Your task to perform on an android device: search for starred emails in the gmail app Image 0: 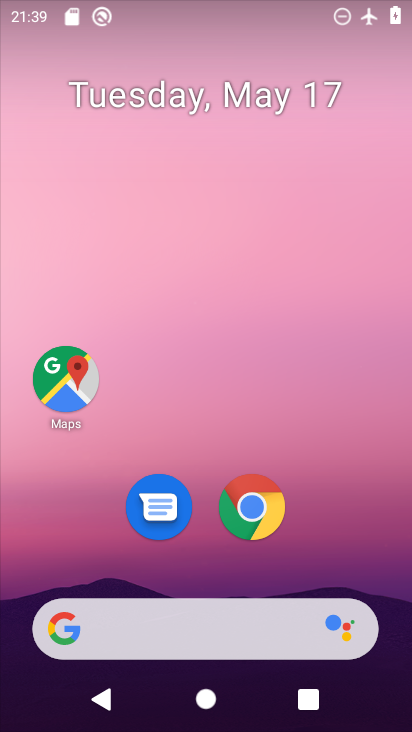
Step 0: drag from (365, 574) to (268, 17)
Your task to perform on an android device: search for starred emails in the gmail app Image 1: 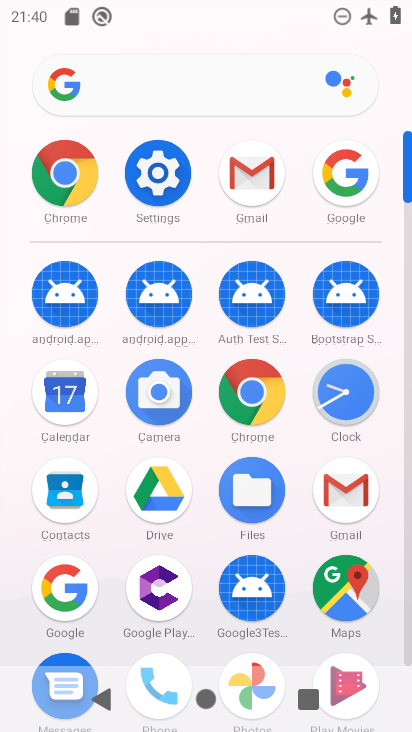
Step 1: click (261, 174)
Your task to perform on an android device: search for starred emails in the gmail app Image 2: 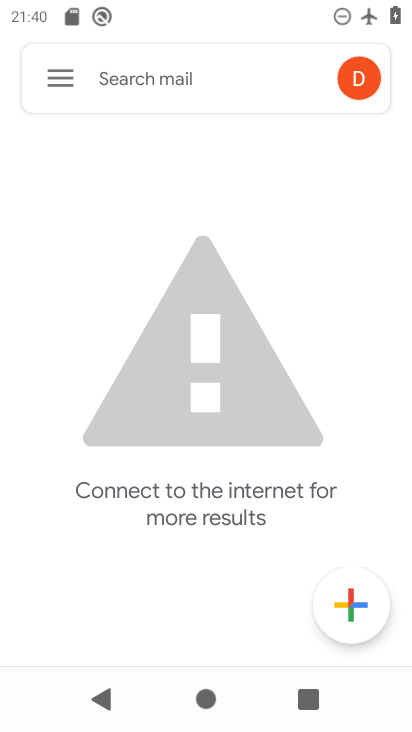
Step 2: click (60, 79)
Your task to perform on an android device: search for starred emails in the gmail app Image 3: 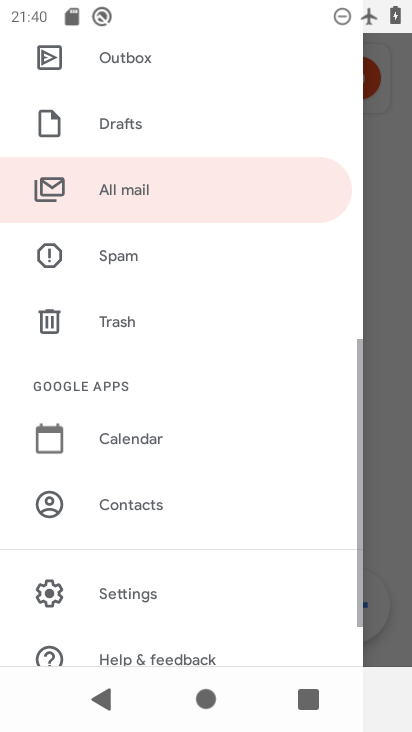
Step 3: drag from (165, 214) to (197, 592)
Your task to perform on an android device: search for starred emails in the gmail app Image 4: 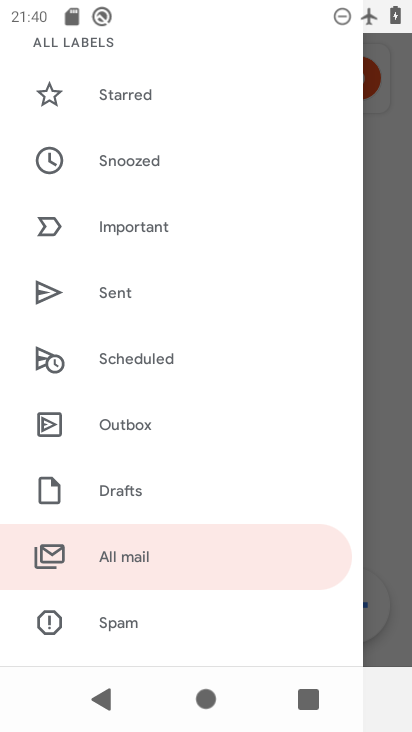
Step 4: click (123, 101)
Your task to perform on an android device: search for starred emails in the gmail app Image 5: 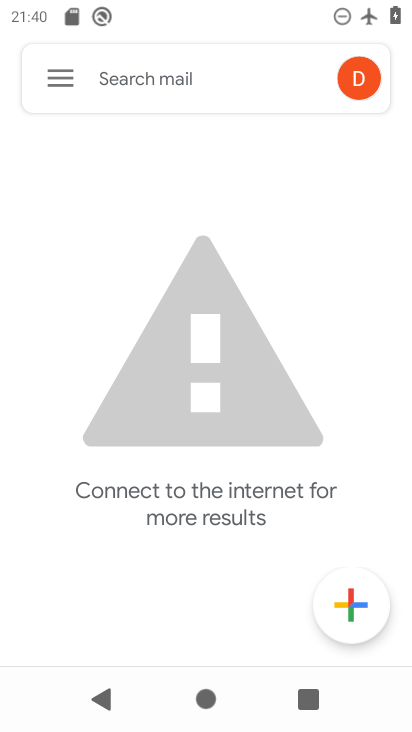
Step 5: task complete